Your task to perform on an android device: Open CNN.com Image 0: 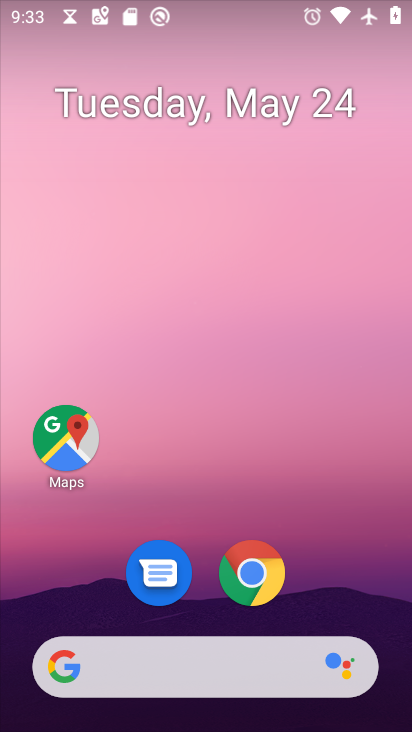
Step 0: drag from (317, 581) to (275, 47)
Your task to perform on an android device: Open CNN.com Image 1: 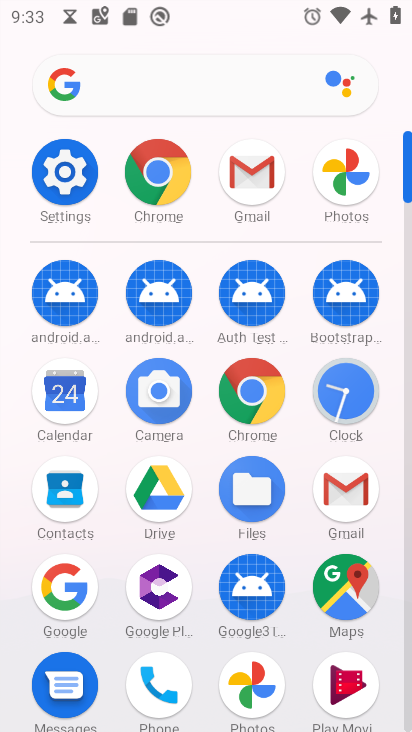
Step 1: click (151, 176)
Your task to perform on an android device: Open CNN.com Image 2: 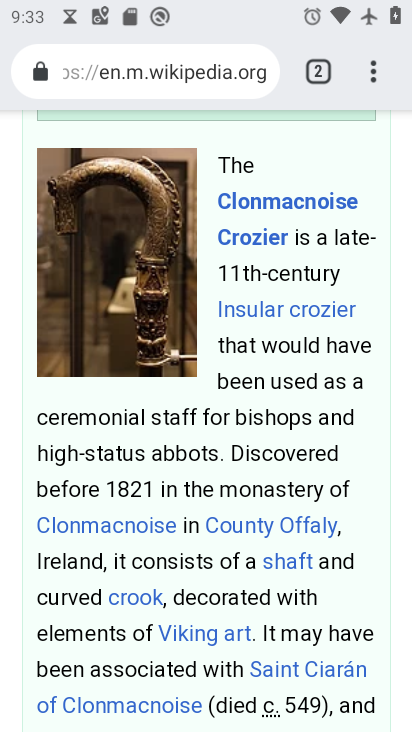
Step 2: click (171, 75)
Your task to perform on an android device: Open CNN.com Image 3: 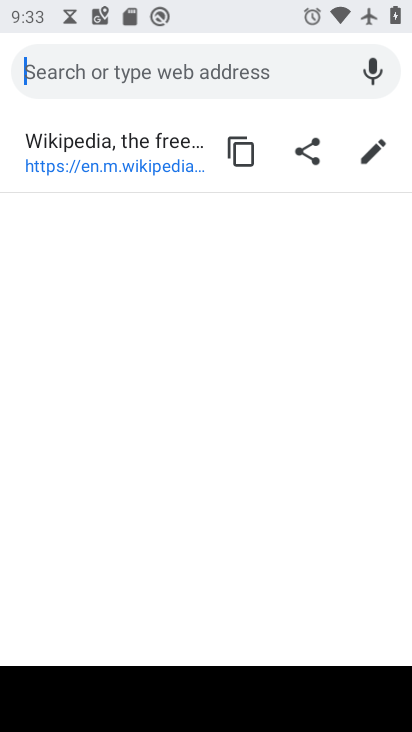
Step 3: type "cnn.com"
Your task to perform on an android device: Open CNN.com Image 4: 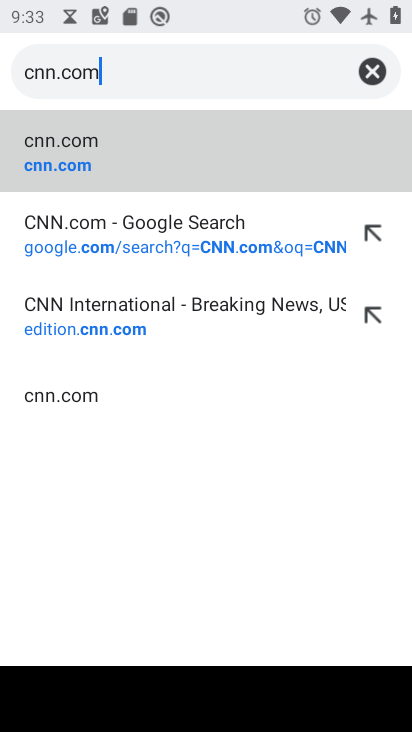
Step 4: click (43, 159)
Your task to perform on an android device: Open CNN.com Image 5: 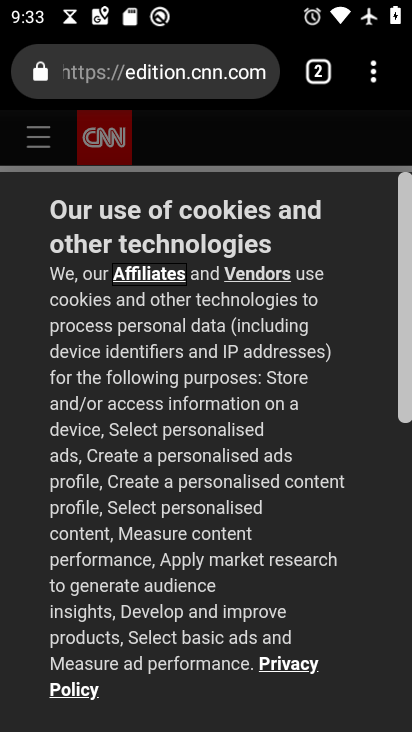
Step 5: task complete